Your task to perform on an android device: move an email to a new category in the gmail app Image 0: 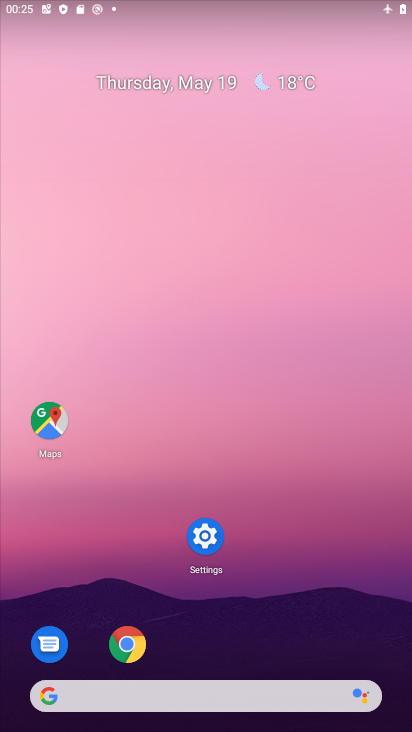
Step 0: drag from (298, 584) to (250, 88)
Your task to perform on an android device: move an email to a new category in the gmail app Image 1: 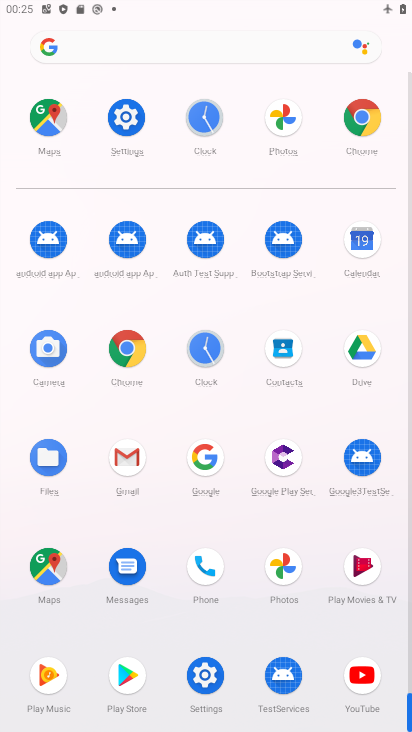
Step 1: click (125, 459)
Your task to perform on an android device: move an email to a new category in the gmail app Image 2: 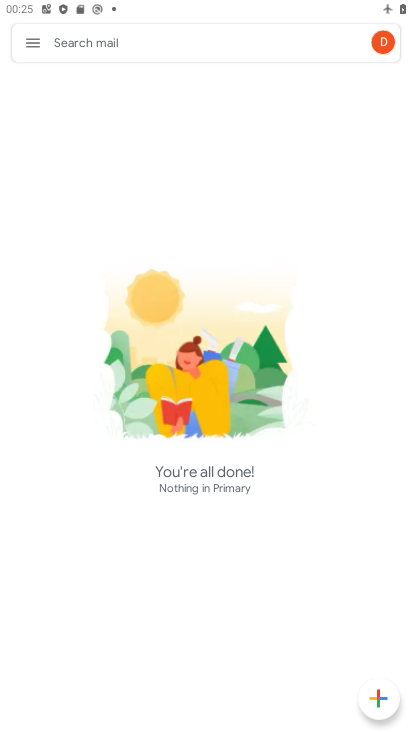
Step 2: click (386, 33)
Your task to perform on an android device: move an email to a new category in the gmail app Image 3: 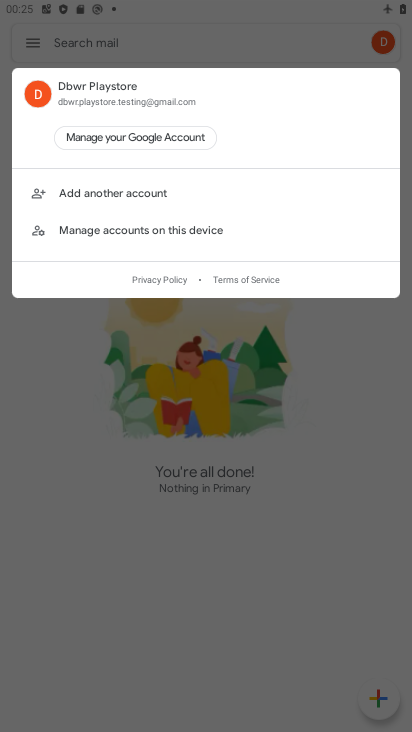
Step 3: click (212, 453)
Your task to perform on an android device: move an email to a new category in the gmail app Image 4: 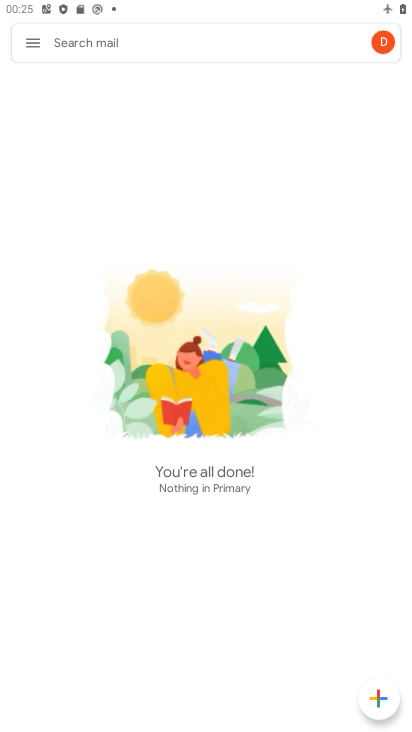
Step 4: click (41, 42)
Your task to perform on an android device: move an email to a new category in the gmail app Image 5: 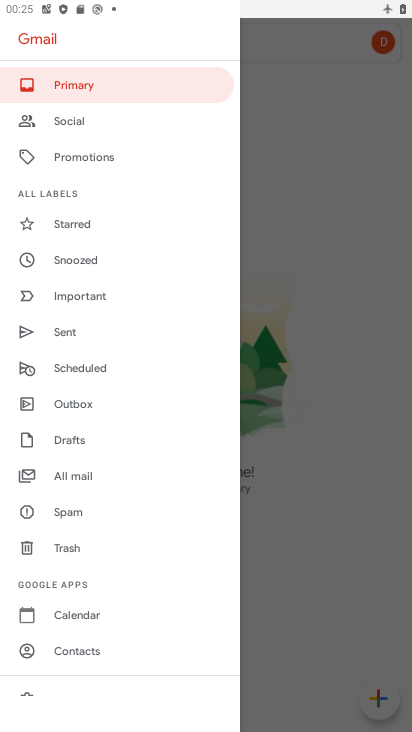
Step 5: click (81, 480)
Your task to perform on an android device: move an email to a new category in the gmail app Image 6: 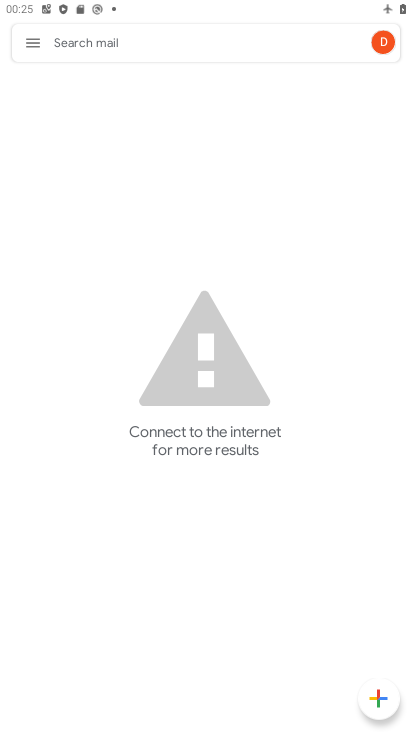
Step 6: task complete